Your task to perform on an android device: turn off notifications in google photos Image 0: 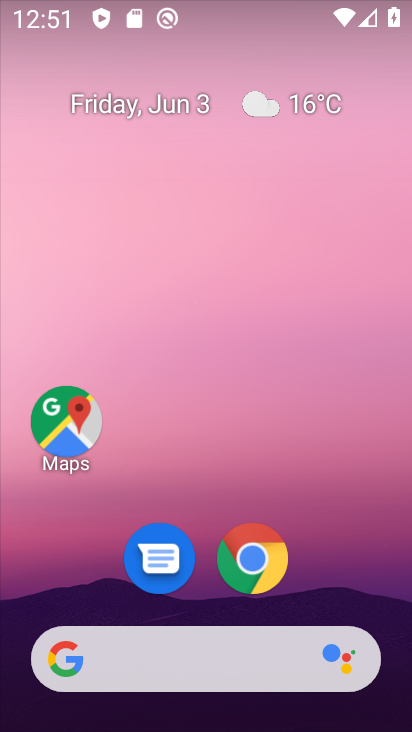
Step 0: drag from (377, 587) to (382, 234)
Your task to perform on an android device: turn off notifications in google photos Image 1: 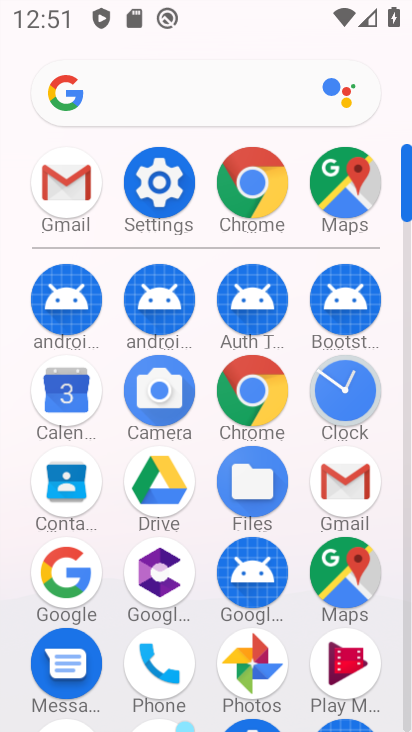
Step 1: click (254, 664)
Your task to perform on an android device: turn off notifications in google photos Image 2: 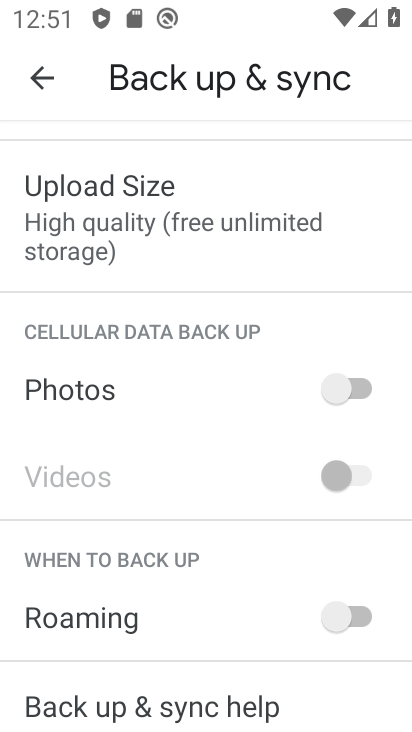
Step 2: press back button
Your task to perform on an android device: turn off notifications in google photos Image 3: 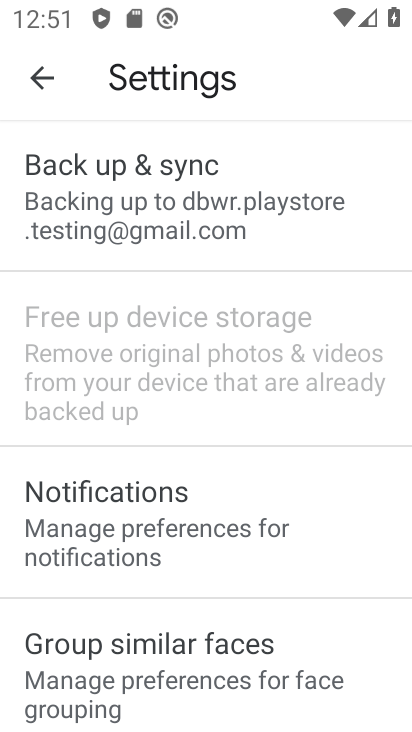
Step 3: click (273, 539)
Your task to perform on an android device: turn off notifications in google photos Image 4: 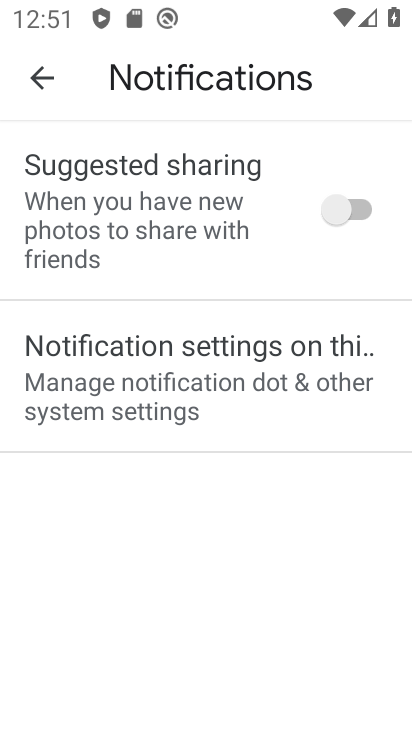
Step 4: click (280, 374)
Your task to perform on an android device: turn off notifications in google photos Image 5: 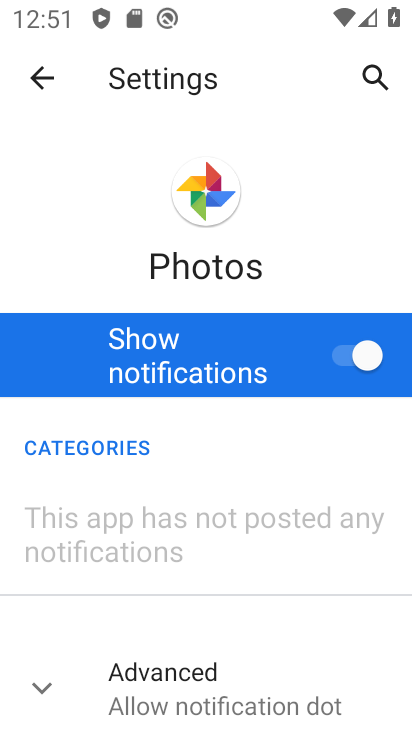
Step 5: click (366, 362)
Your task to perform on an android device: turn off notifications in google photos Image 6: 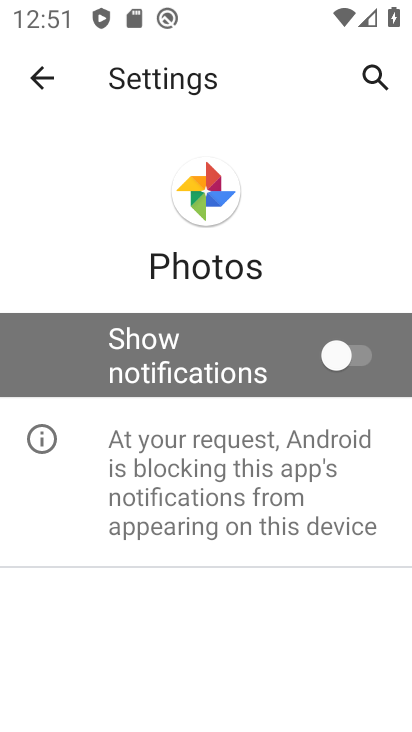
Step 6: task complete